Your task to perform on an android device: Open Amazon Image 0: 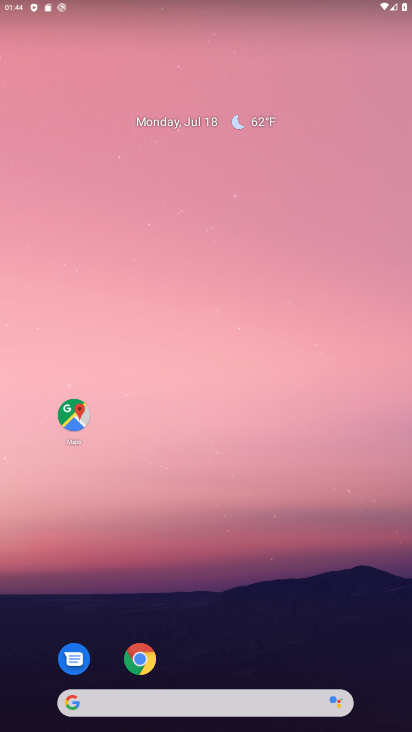
Step 0: drag from (290, 564) to (304, 79)
Your task to perform on an android device: Open Amazon Image 1: 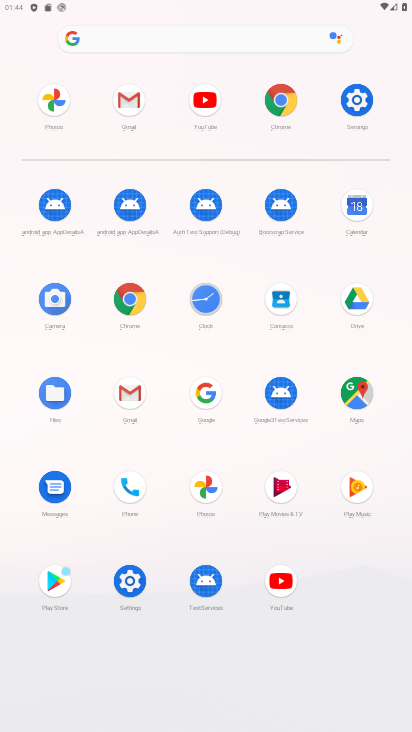
Step 1: click (284, 100)
Your task to perform on an android device: Open Amazon Image 2: 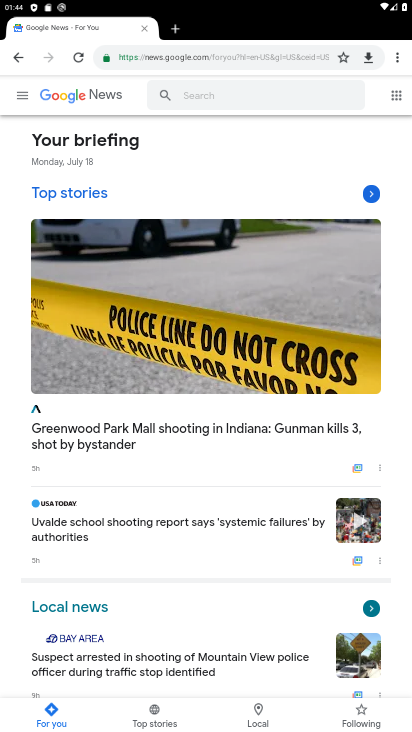
Step 2: click (216, 51)
Your task to perform on an android device: Open Amazon Image 3: 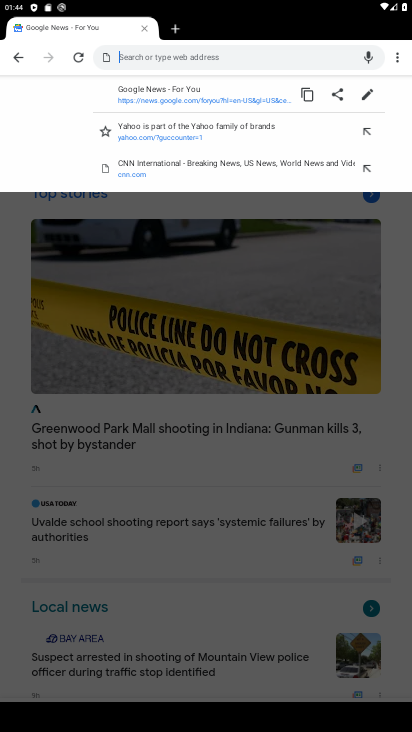
Step 3: type "amazon"
Your task to perform on an android device: Open Amazon Image 4: 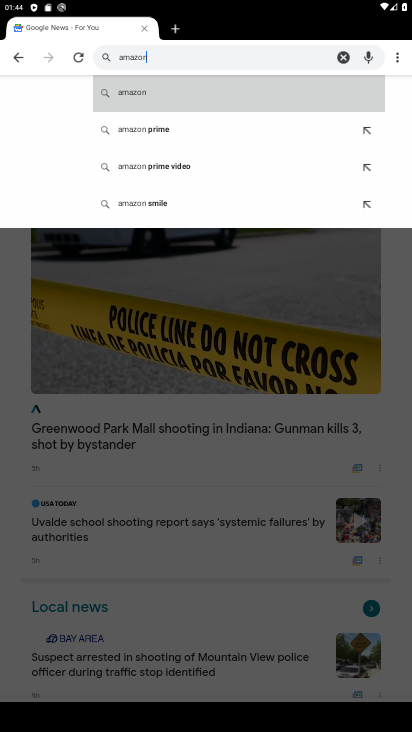
Step 4: click (138, 87)
Your task to perform on an android device: Open Amazon Image 5: 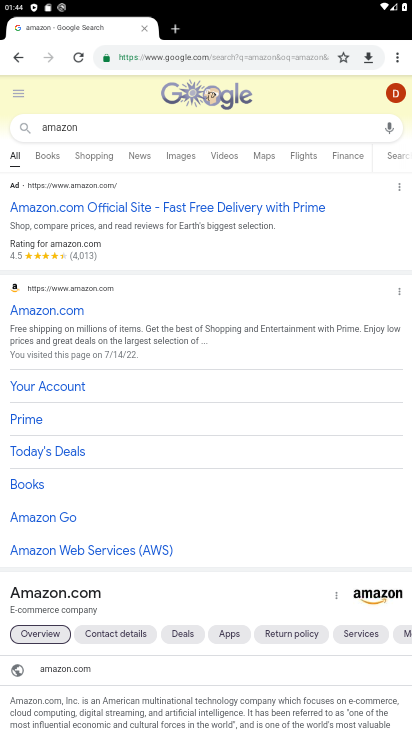
Step 5: click (46, 309)
Your task to perform on an android device: Open Amazon Image 6: 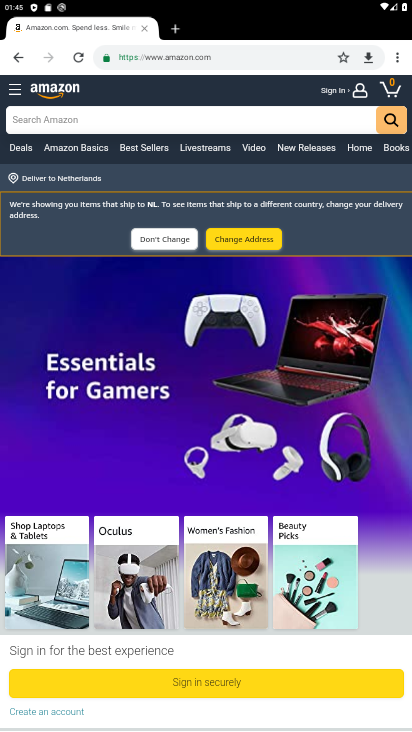
Step 6: task complete